Your task to perform on an android device: Go to Wikipedia Image 0: 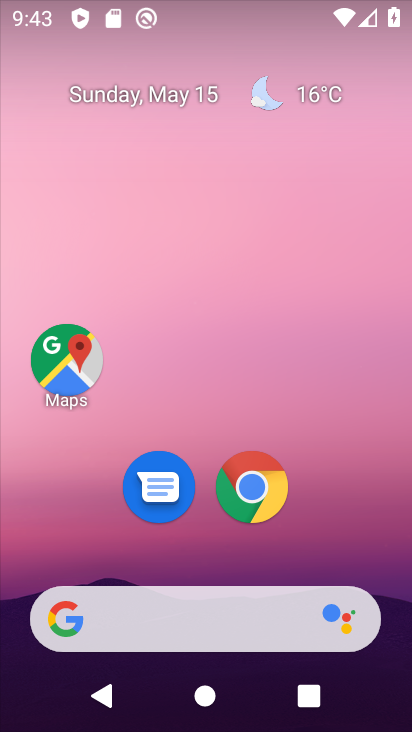
Step 0: click (250, 493)
Your task to perform on an android device: Go to Wikipedia Image 1: 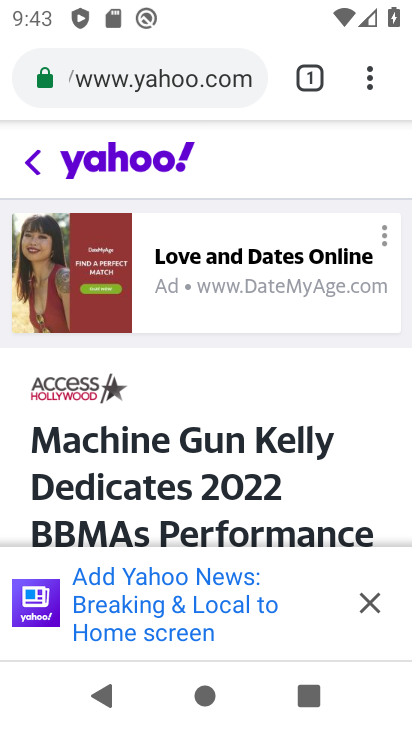
Step 1: click (142, 71)
Your task to perform on an android device: Go to Wikipedia Image 2: 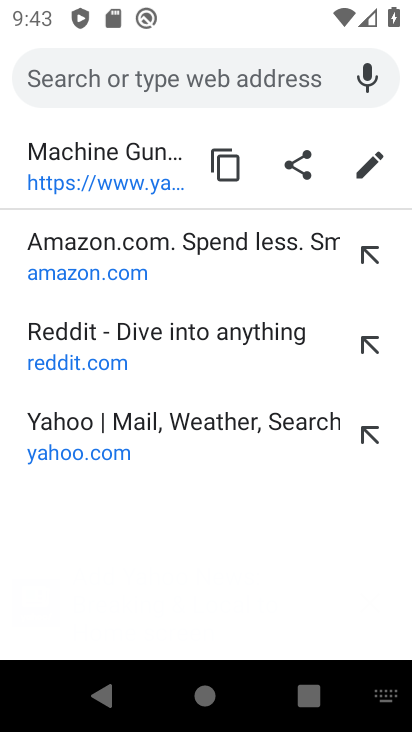
Step 2: type "wikipedia"
Your task to perform on an android device: Go to Wikipedia Image 3: 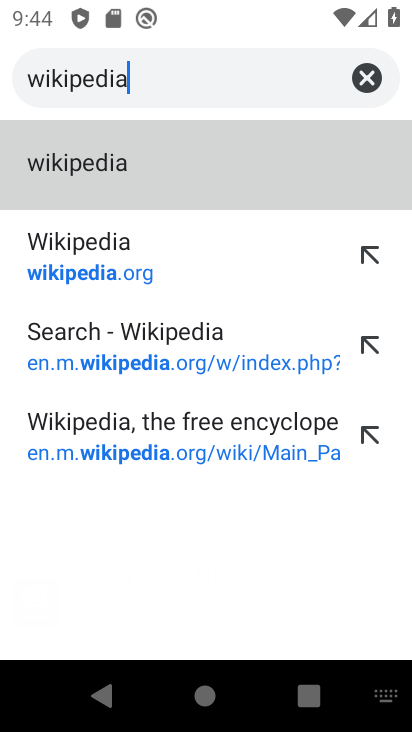
Step 3: click (75, 167)
Your task to perform on an android device: Go to Wikipedia Image 4: 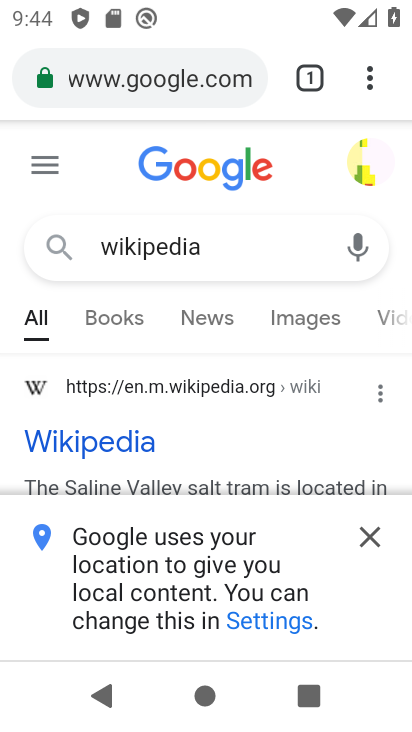
Step 4: click (136, 433)
Your task to perform on an android device: Go to Wikipedia Image 5: 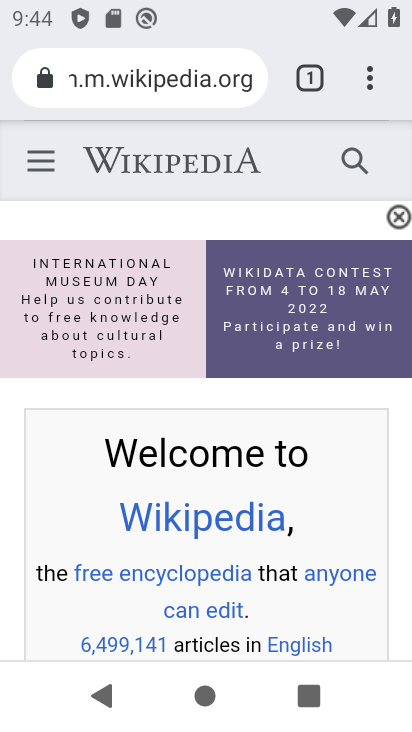
Step 5: task complete